Your task to perform on an android device: Open eBay Image 0: 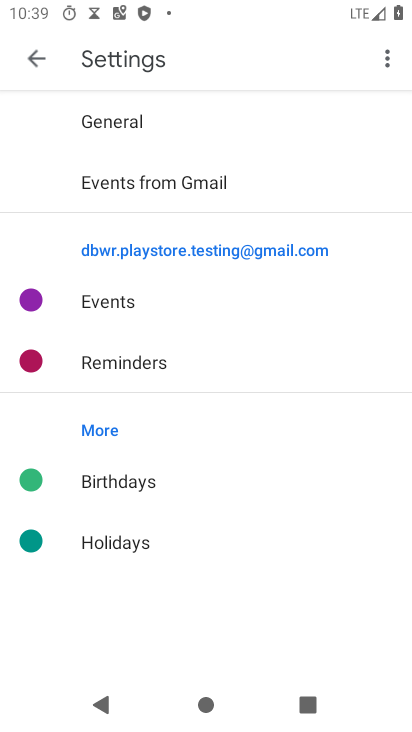
Step 0: press home button
Your task to perform on an android device: Open eBay Image 1: 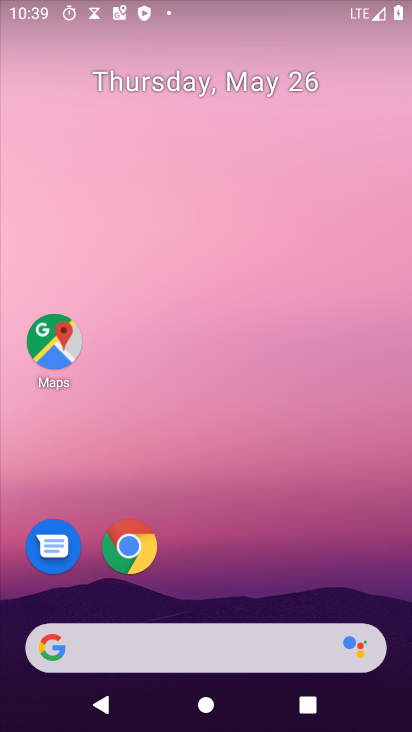
Step 1: drag from (312, 567) to (303, 120)
Your task to perform on an android device: Open eBay Image 2: 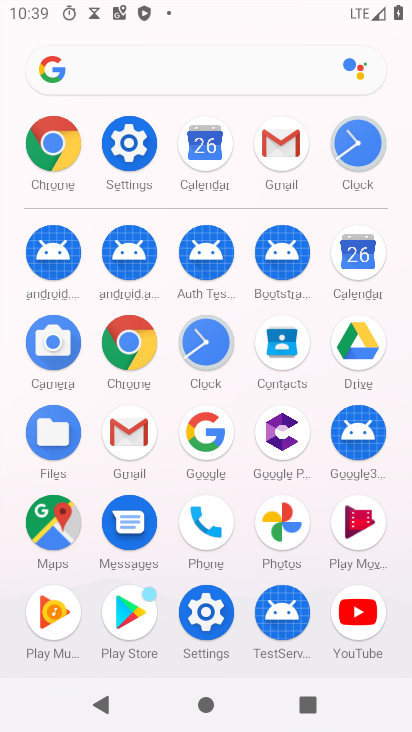
Step 2: click (121, 332)
Your task to perform on an android device: Open eBay Image 3: 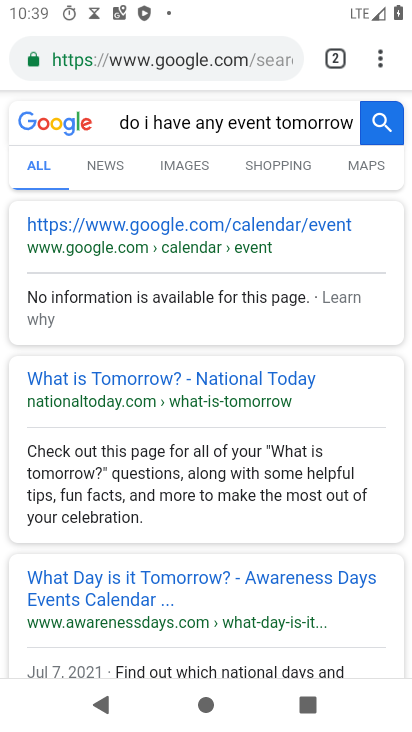
Step 3: click (256, 118)
Your task to perform on an android device: Open eBay Image 4: 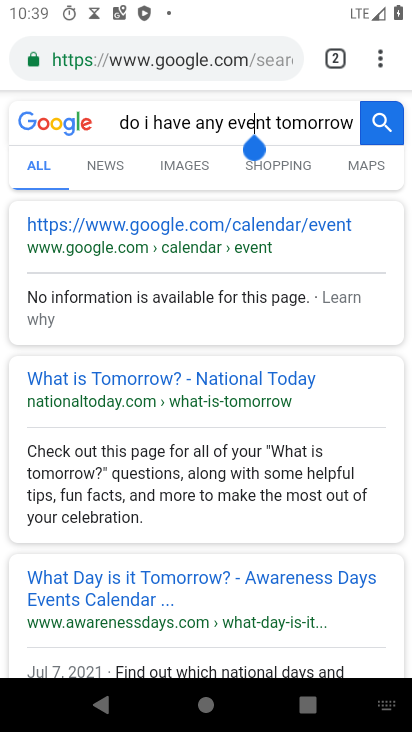
Step 4: click (253, 60)
Your task to perform on an android device: Open eBay Image 5: 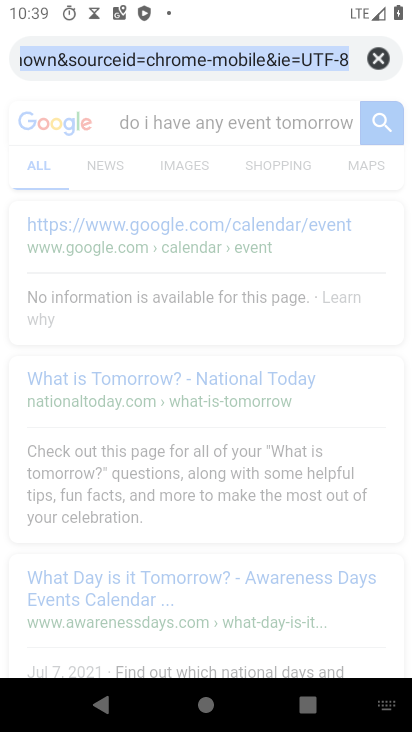
Step 5: click (390, 57)
Your task to perform on an android device: Open eBay Image 6: 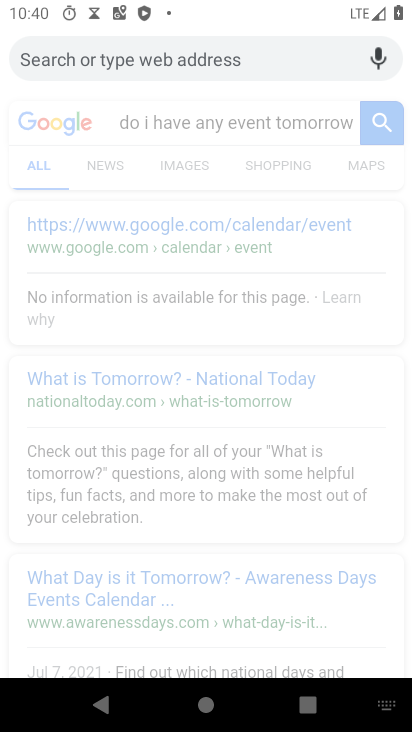
Step 6: type "ebay"
Your task to perform on an android device: Open eBay Image 7: 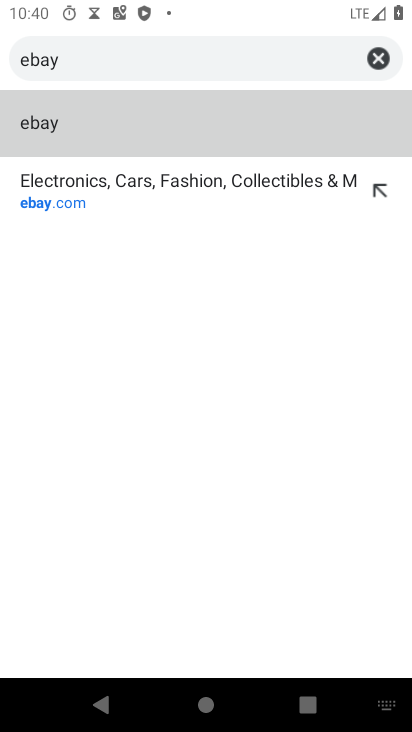
Step 7: click (76, 137)
Your task to perform on an android device: Open eBay Image 8: 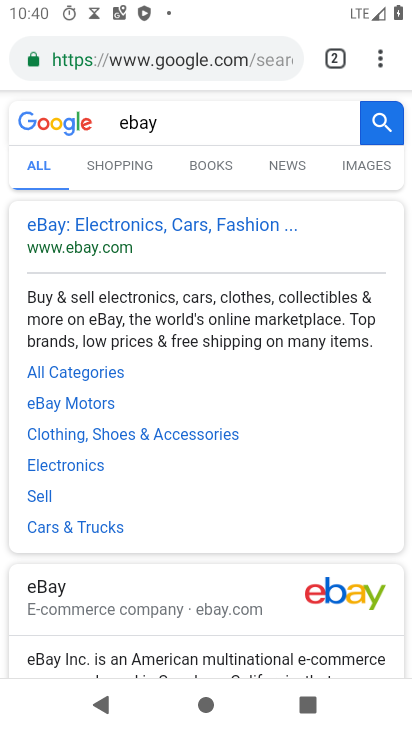
Step 8: click (118, 222)
Your task to perform on an android device: Open eBay Image 9: 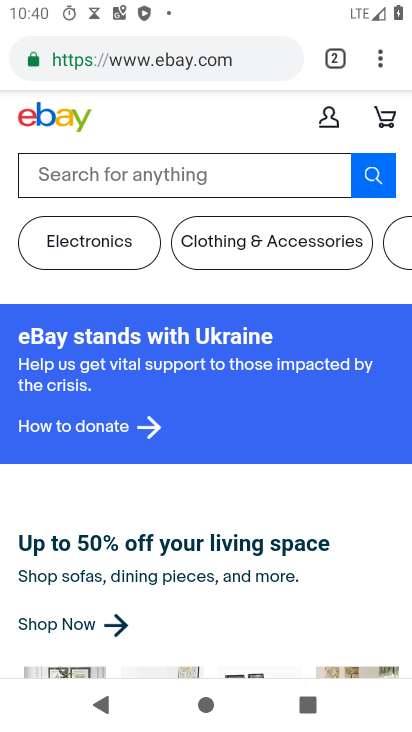
Step 9: task complete